Your task to perform on an android device: open the mobile data screen to see how much data has been used Image 0: 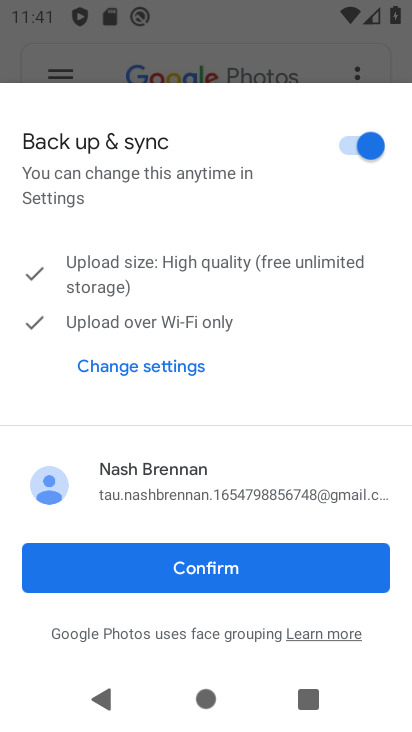
Step 0: click (170, 567)
Your task to perform on an android device: open the mobile data screen to see how much data has been used Image 1: 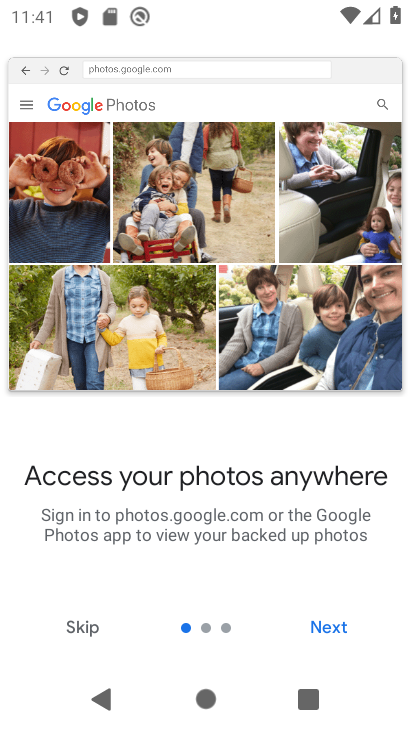
Step 1: click (323, 629)
Your task to perform on an android device: open the mobile data screen to see how much data has been used Image 2: 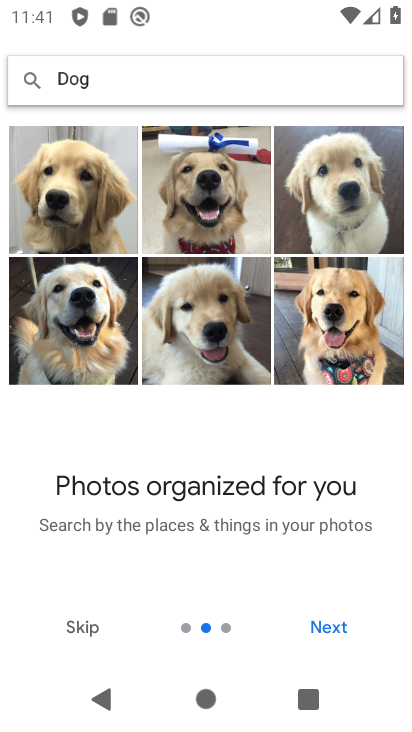
Step 2: press home button
Your task to perform on an android device: open the mobile data screen to see how much data has been used Image 3: 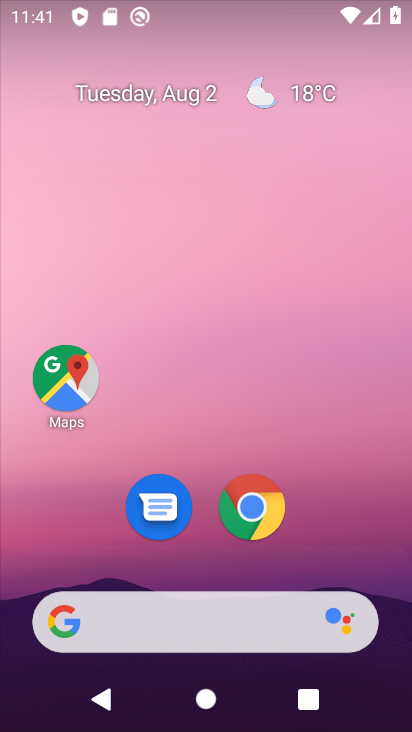
Step 3: drag from (146, 615) to (237, 64)
Your task to perform on an android device: open the mobile data screen to see how much data has been used Image 4: 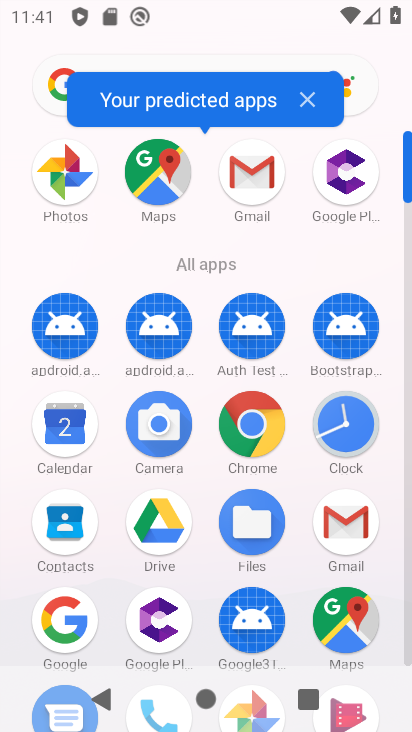
Step 4: drag from (204, 649) to (190, 26)
Your task to perform on an android device: open the mobile data screen to see how much data has been used Image 5: 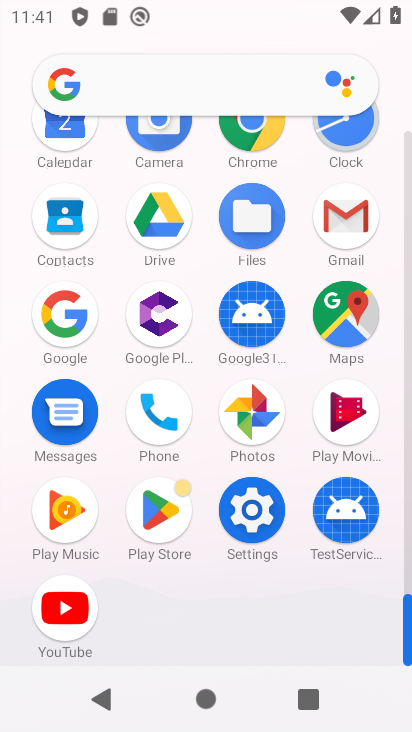
Step 5: click (228, 525)
Your task to perform on an android device: open the mobile data screen to see how much data has been used Image 6: 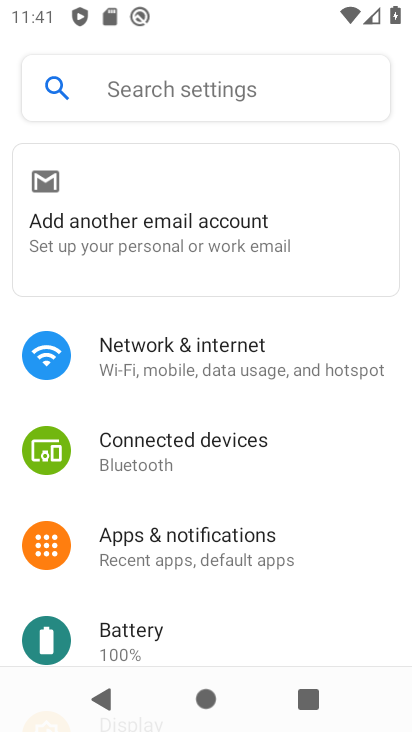
Step 6: click (140, 346)
Your task to perform on an android device: open the mobile data screen to see how much data has been used Image 7: 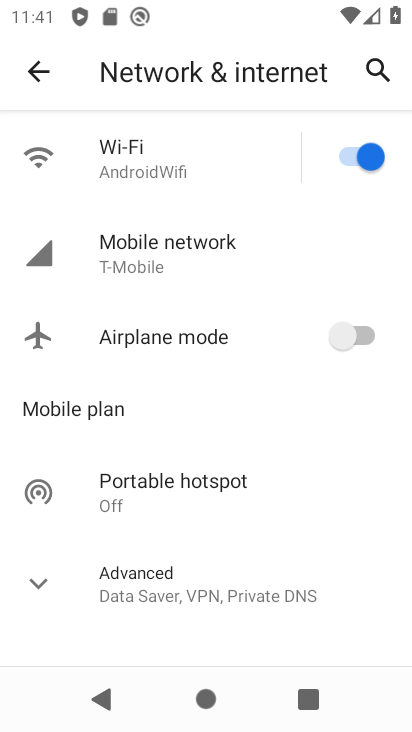
Step 7: click (150, 267)
Your task to perform on an android device: open the mobile data screen to see how much data has been used Image 8: 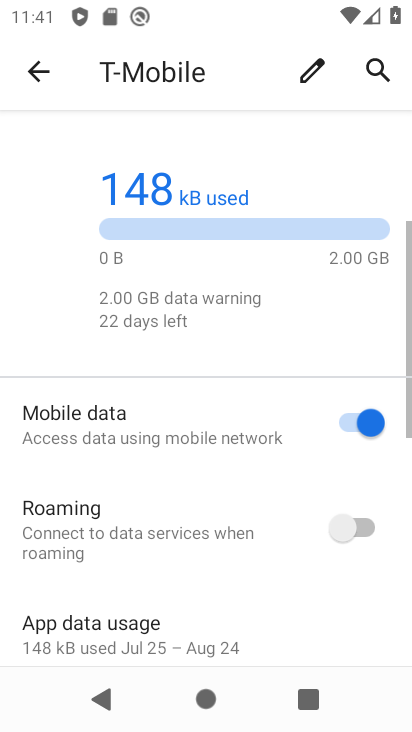
Step 8: task complete